Your task to perform on an android device: Open calendar and show me the third week of next month Image 0: 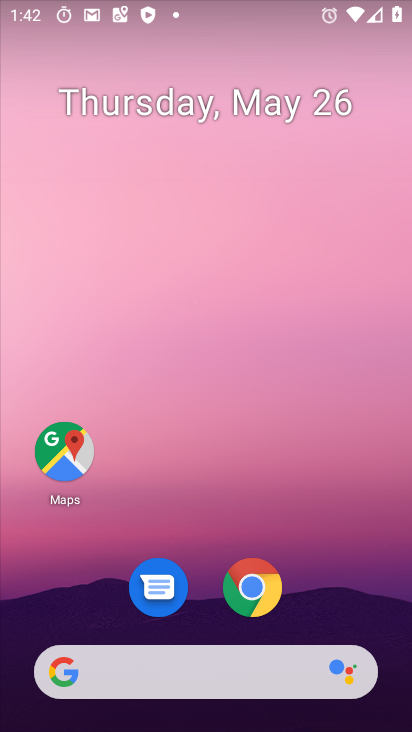
Step 0: drag from (278, 715) to (226, 0)
Your task to perform on an android device: Open calendar and show me the third week of next month Image 1: 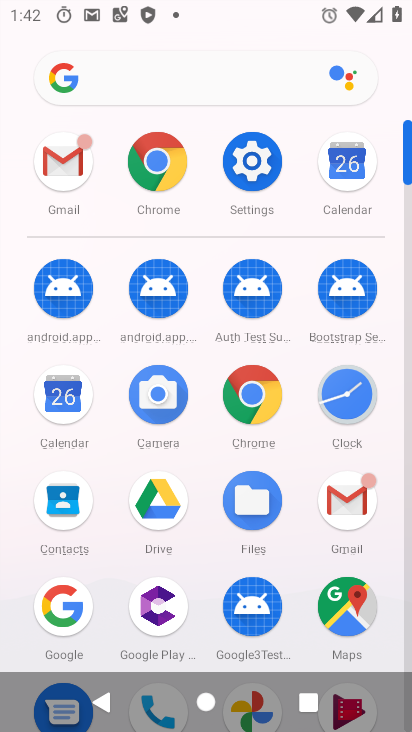
Step 1: click (355, 186)
Your task to perform on an android device: Open calendar and show me the third week of next month Image 2: 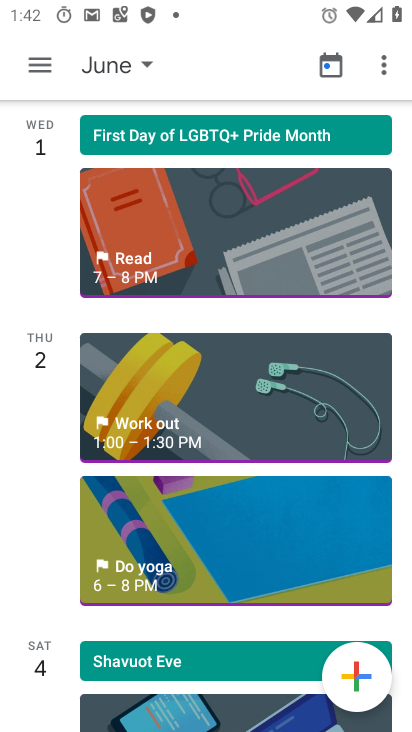
Step 2: click (45, 53)
Your task to perform on an android device: Open calendar and show me the third week of next month Image 3: 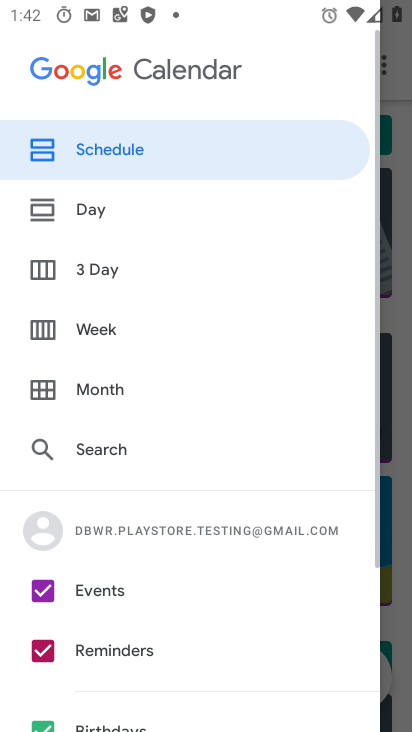
Step 3: click (115, 392)
Your task to perform on an android device: Open calendar and show me the third week of next month Image 4: 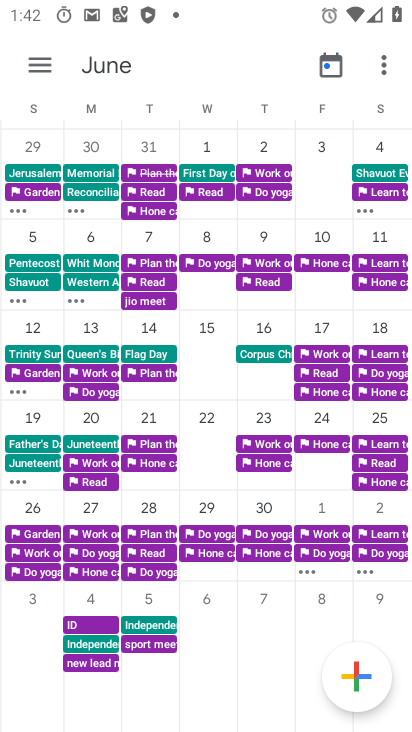
Step 4: click (89, 421)
Your task to perform on an android device: Open calendar and show me the third week of next month Image 5: 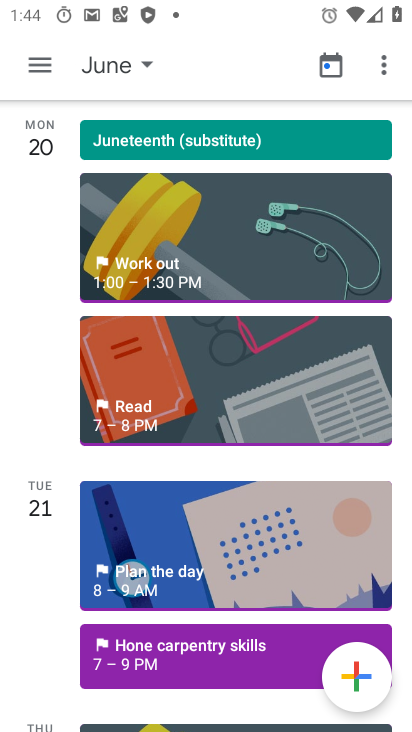
Step 5: task complete